Your task to perform on an android device: Open calendar and show me the second week of next month Image 0: 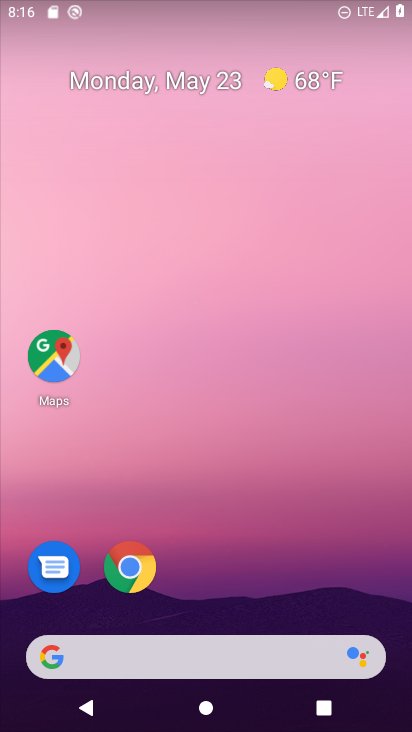
Step 0: drag from (156, 616) to (197, 35)
Your task to perform on an android device: Open calendar and show me the second week of next month Image 1: 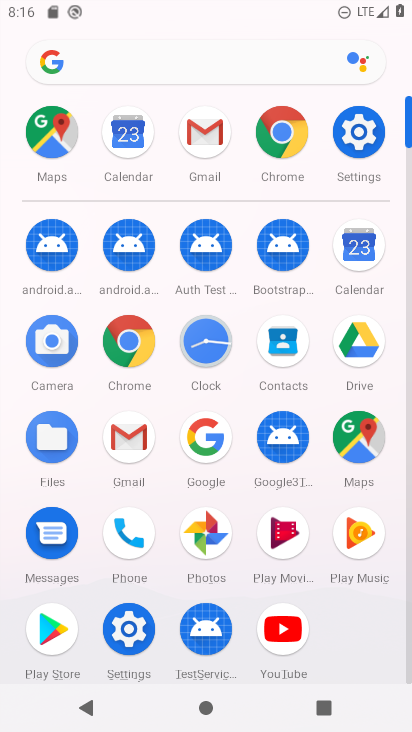
Step 1: click (343, 252)
Your task to perform on an android device: Open calendar and show me the second week of next month Image 2: 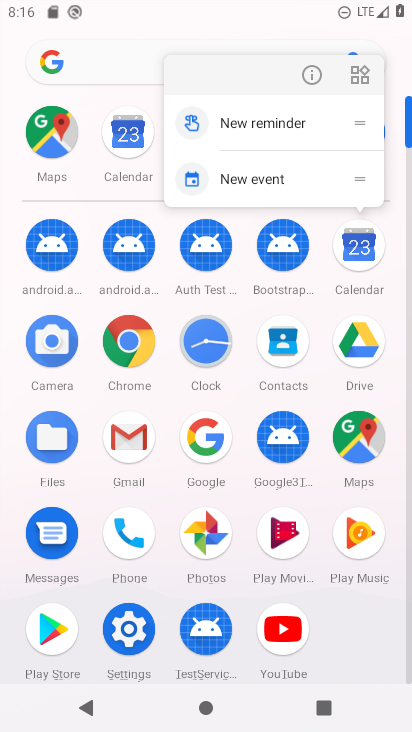
Step 2: click (313, 83)
Your task to perform on an android device: Open calendar and show me the second week of next month Image 3: 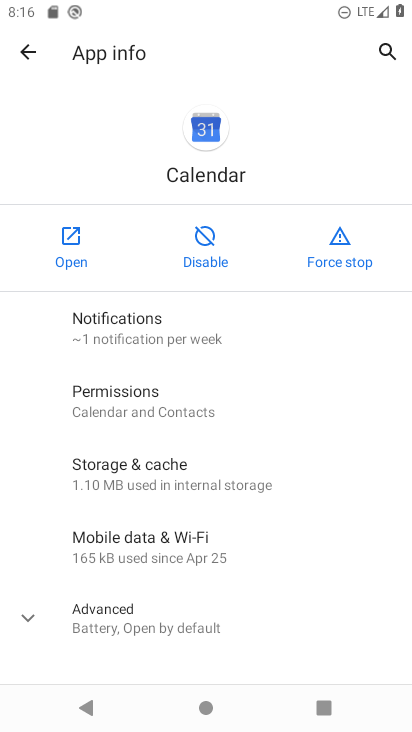
Step 3: click (75, 267)
Your task to perform on an android device: Open calendar and show me the second week of next month Image 4: 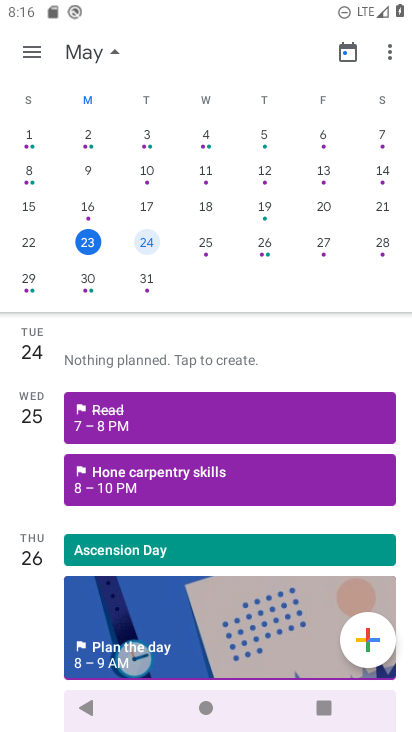
Step 4: drag from (394, 194) to (5, 169)
Your task to perform on an android device: Open calendar and show me the second week of next month Image 5: 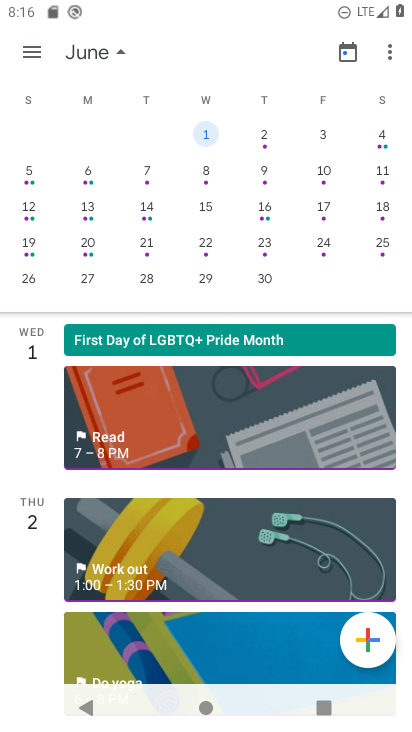
Step 5: drag from (282, 629) to (301, 309)
Your task to perform on an android device: Open calendar and show me the second week of next month Image 6: 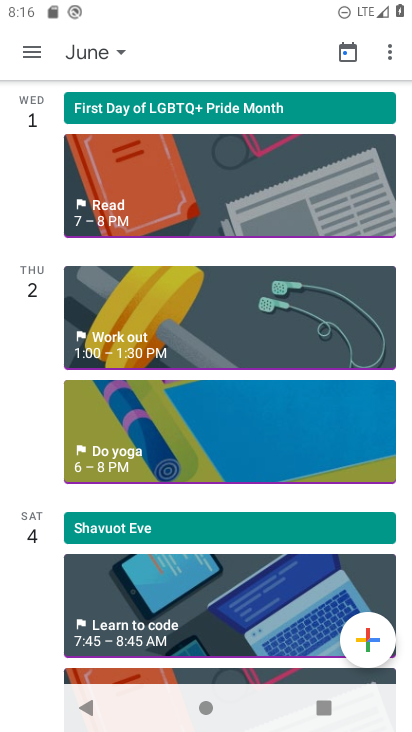
Step 6: drag from (228, 216) to (228, 659)
Your task to perform on an android device: Open calendar and show me the second week of next month Image 7: 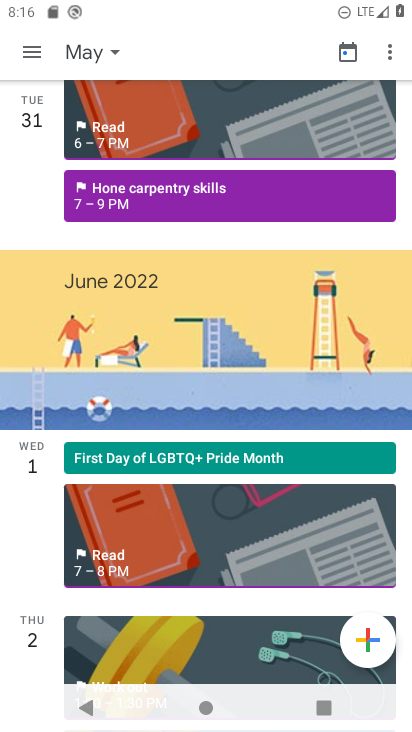
Step 7: drag from (293, 164) to (220, 601)
Your task to perform on an android device: Open calendar and show me the second week of next month Image 8: 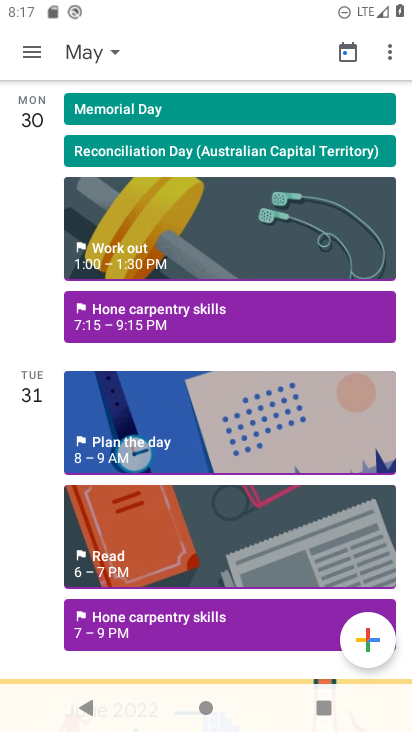
Step 8: click (92, 62)
Your task to perform on an android device: Open calendar and show me the second week of next month Image 9: 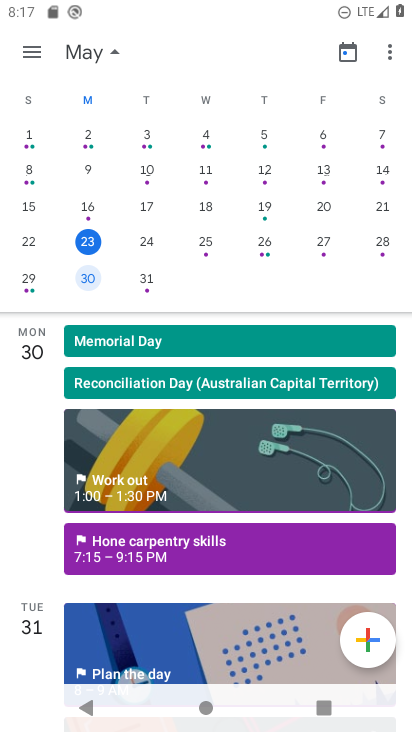
Step 9: drag from (322, 180) to (12, 198)
Your task to perform on an android device: Open calendar and show me the second week of next month Image 10: 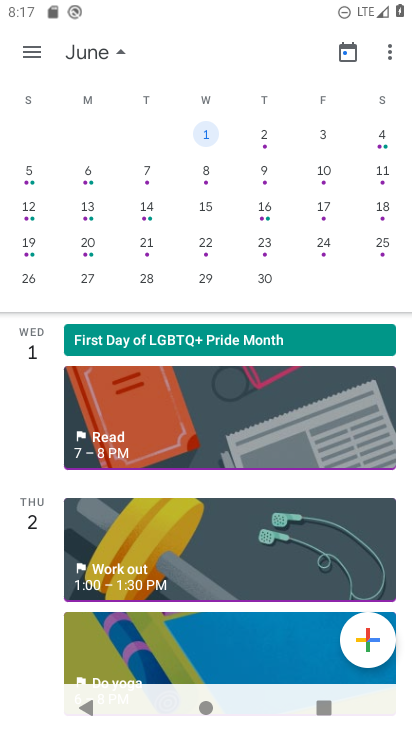
Step 10: click (195, 170)
Your task to perform on an android device: Open calendar and show me the second week of next month Image 11: 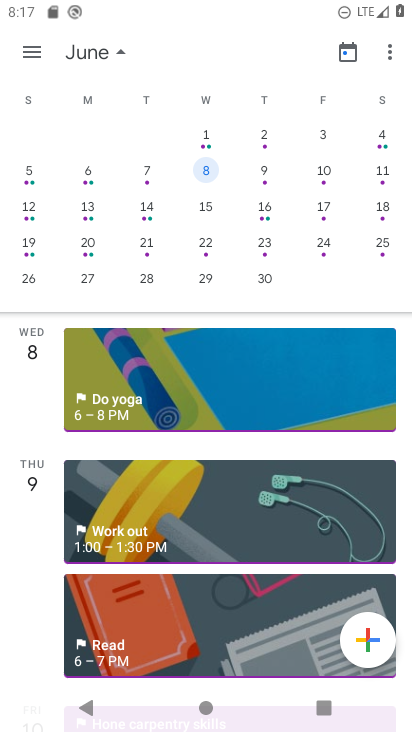
Step 11: task complete